Your task to perform on an android device: What's on my calendar today? Image 0: 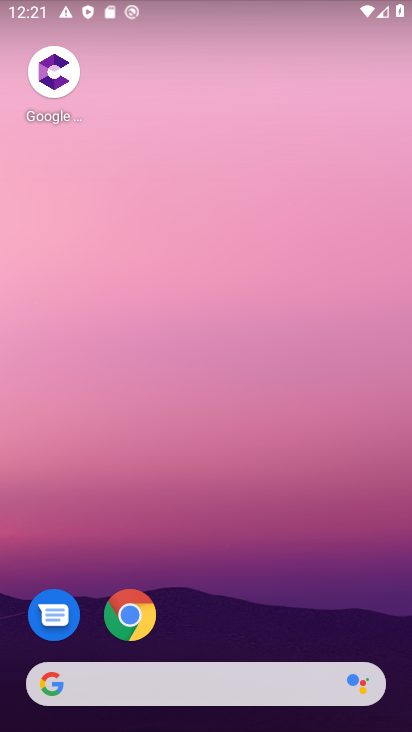
Step 0: drag from (204, 704) to (236, 299)
Your task to perform on an android device: What's on my calendar today? Image 1: 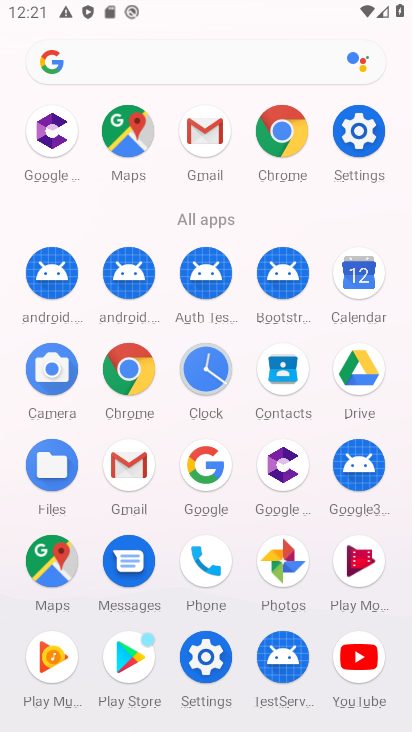
Step 1: click (358, 284)
Your task to perform on an android device: What's on my calendar today? Image 2: 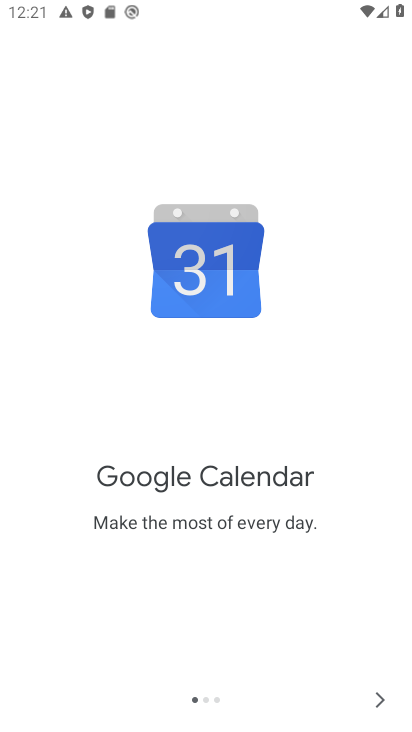
Step 2: click (374, 682)
Your task to perform on an android device: What's on my calendar today? Image 3: 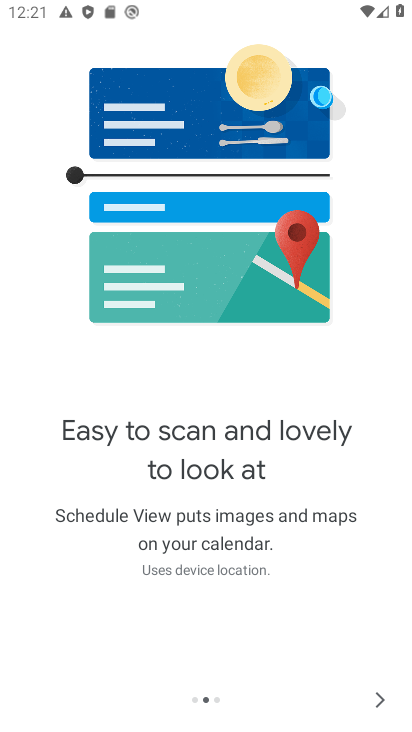
Step 3: click (370, 695)
Your task to perform on an android device: What's on my calendar today? Image 4: 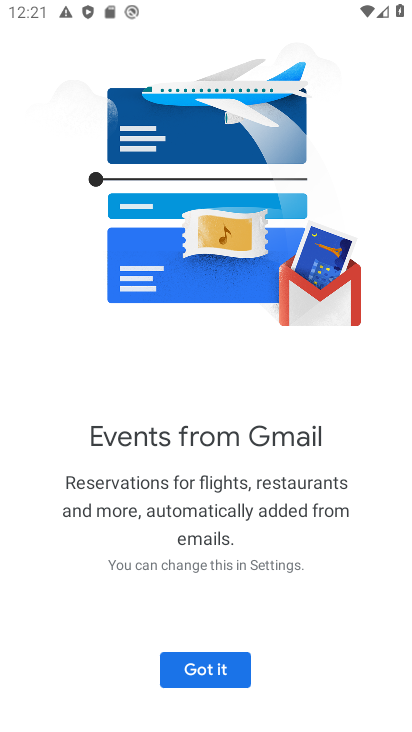
Step 4: click (195, 651)
Your task to perform on an android device: What's on my calendar today? Image 5: 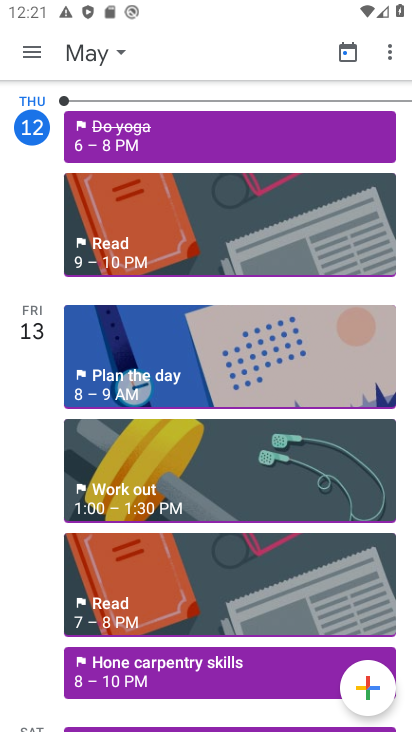
Step 5: task complete